Your task to perform on an android device: What is the news today? Image 0: 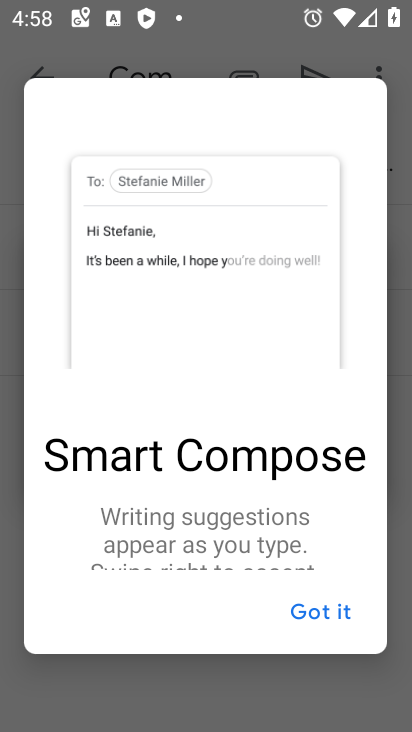
Step 0: press home button
Your task to perform on an android device: What is the news today? Image 1: 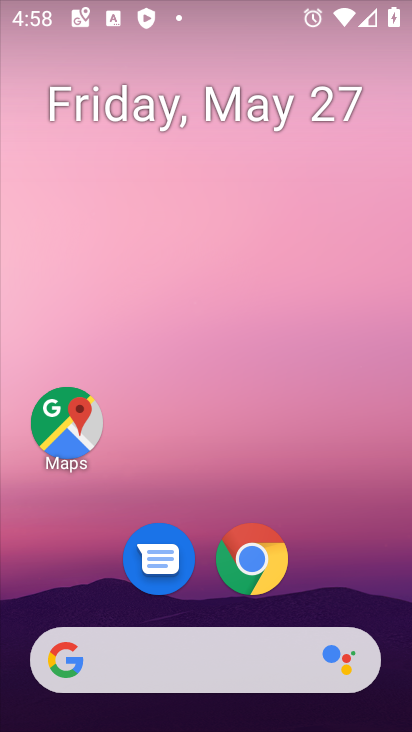
Step 1: drag from (236, 623) to (297, 87)
Your task to perform on an android device: What is the news today? Image 2: 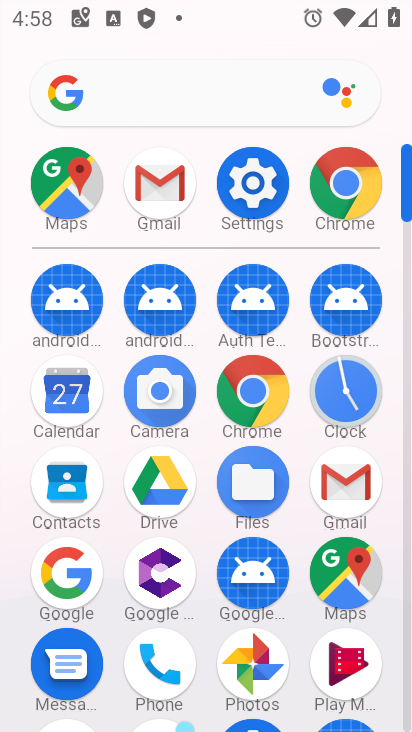
Step 2: click (258, 400)
Your task to perform on an android device: What is the news today? Image 3: 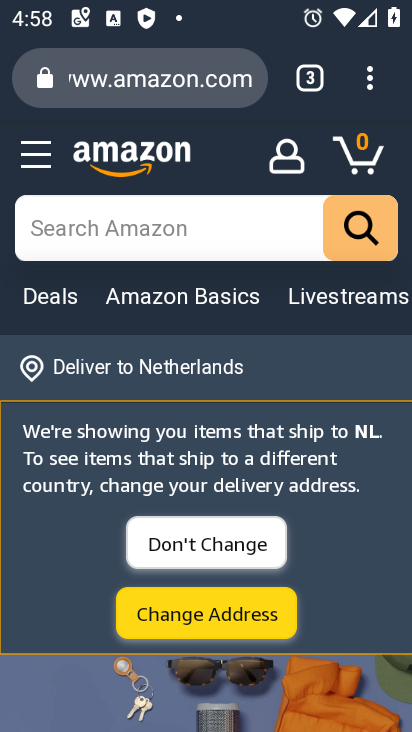
Step 3: click (193, 74)
Your task to perform on an android device: What is the news today? Image 4: 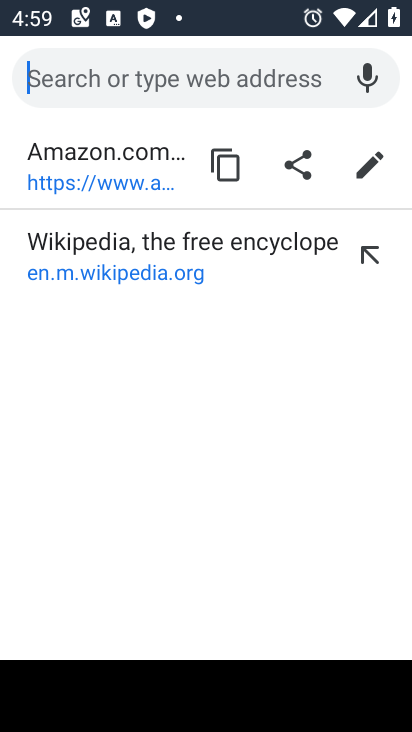
Step 4: type "news today"
Your task to perform on an android device: What is the news today? Image 5: 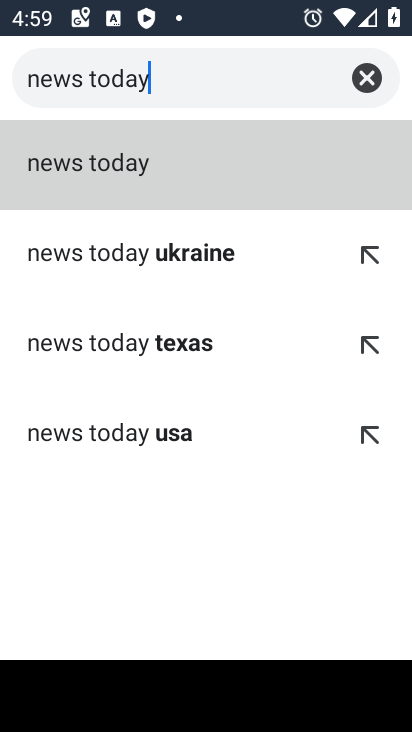
Step 5: click (152, 130)
Your task to perform on an android device: What is the news today? Image 6: 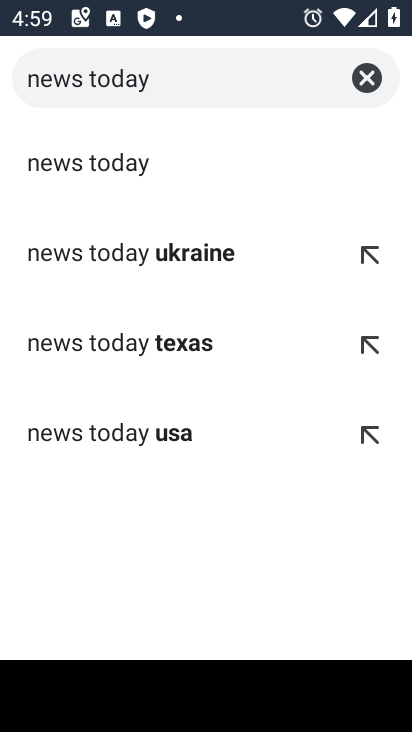
Step 6: click (127, 163)
Your task to perform on an android device: What is the news today? Image 7: 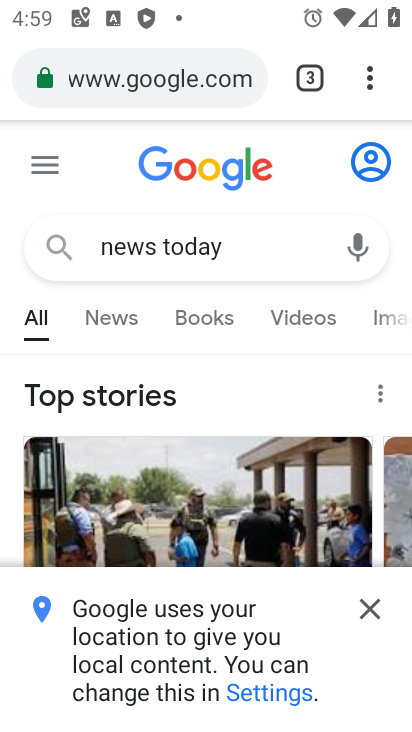
Step 7: task complete